Your task to perform on an android device: Go to battery settings Image 0: 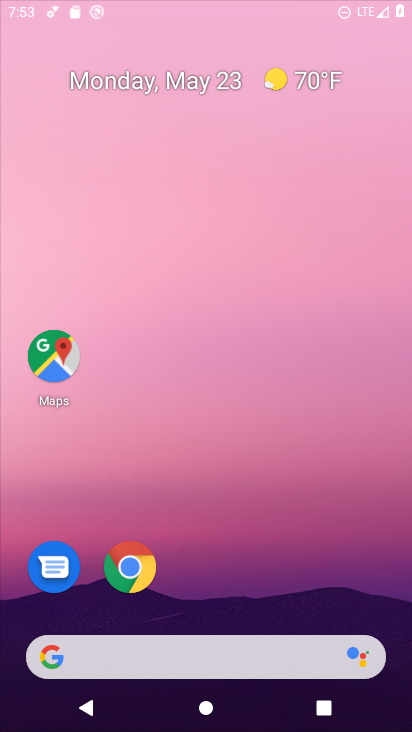
Step 0: drag from (192, 588) to (235, 19)
Your task to perform on an android device: Go to battery settings Image 1: 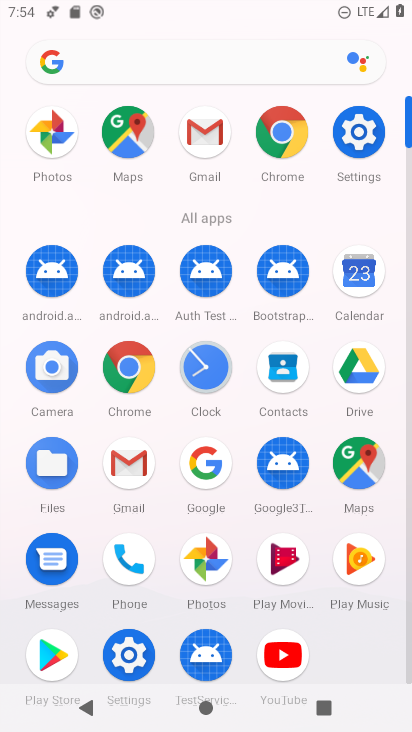
Step 1: click (356, 132)
Your task to perform on an android device: Go to battery settings Image 2: 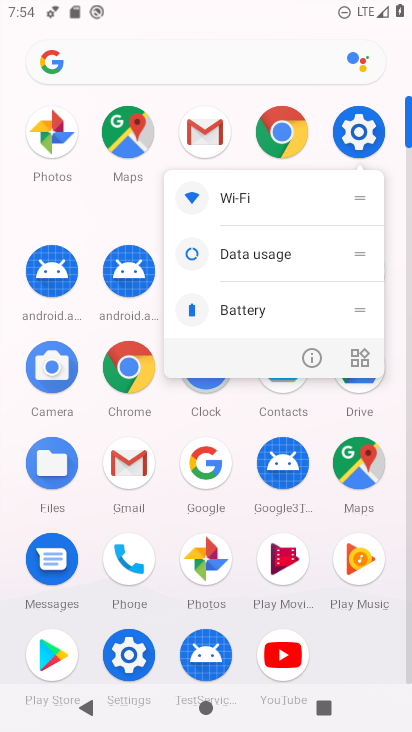
Step 2: click (308, 354)
Your task to perform on an android device: Go to battery settings Image 3: 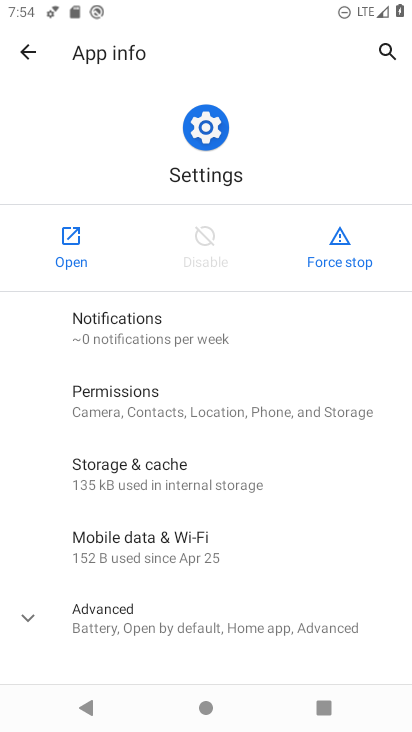
Step 3: click (71, 231)
Your task to perform on an android device: Go to battery settings Image 4: 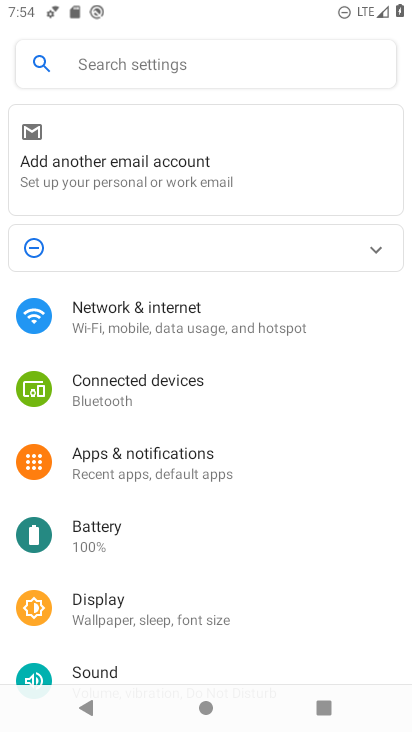
Step 4: click (116, 518)
Your task to perform on an android device: Go to battery settings Image 5: 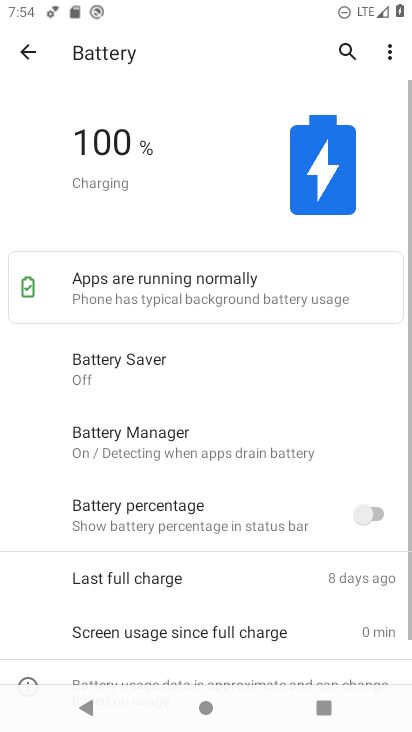
Step 5: task complete